Your task to perform on an android device: Open sound settings Image 0: 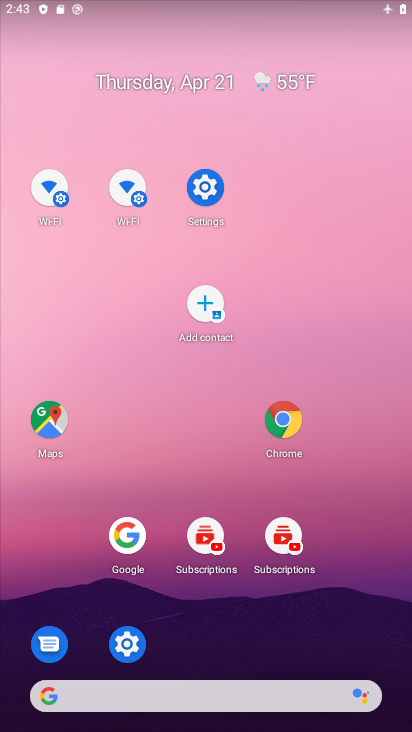
Step 0: drag from (299, 486) to (201, 137)
Your task to perform on an android device: Open sound settings Image 1: 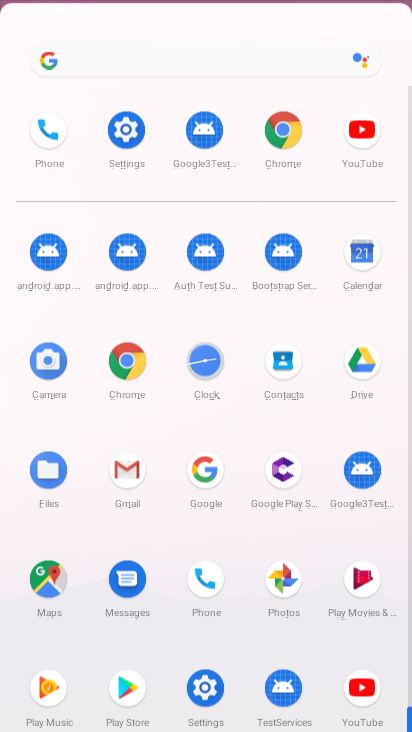
Step 1: drag from (376, 588) to (382, 196)
Your task to perform on an android device: Open sound settings Image 2: 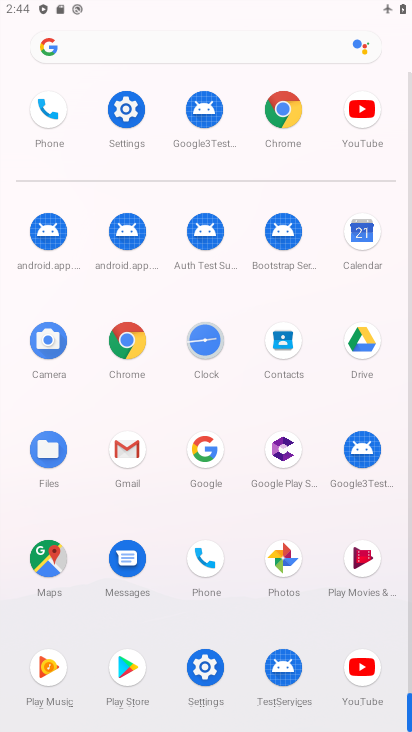
Step 2: click (119, 111)
Your task to perform on an android device: Open sound settings Image 3: 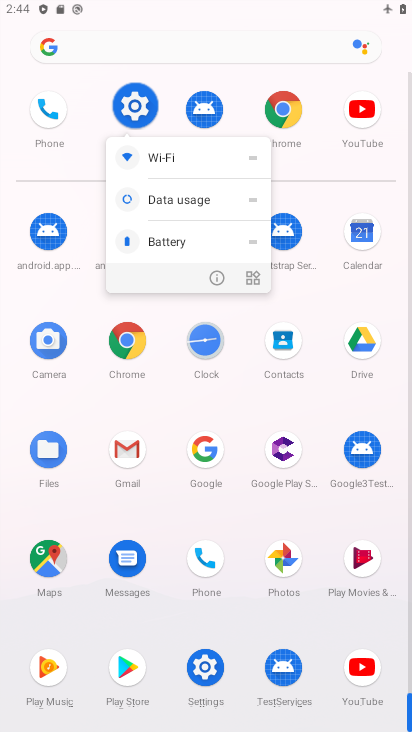
Step 3: click (127, 107)
Your task to perform on an android device: Open sound settings Image 4: 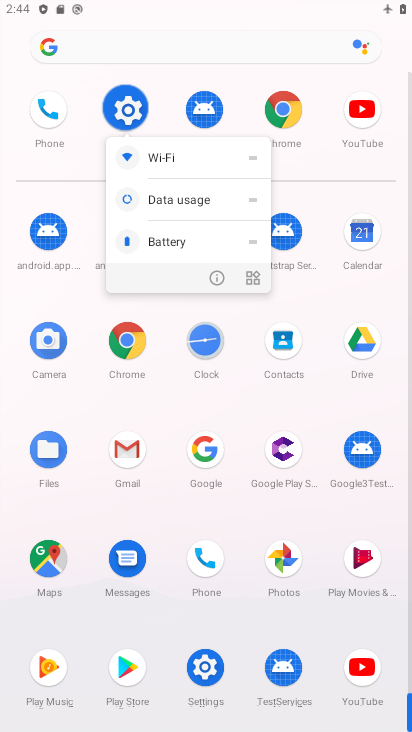
Step 4: click (124, 107)
Your task to perform on an android device: Open sound settings Image 5: 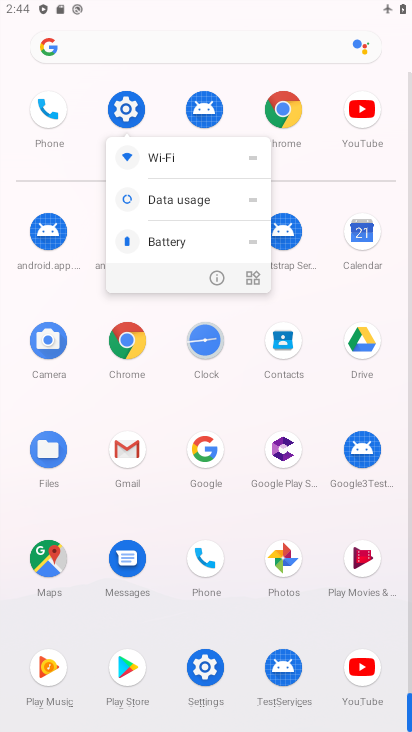
Step 5: click (149, 160)
Your task to perform on an android device: Open sound settings Image 6: 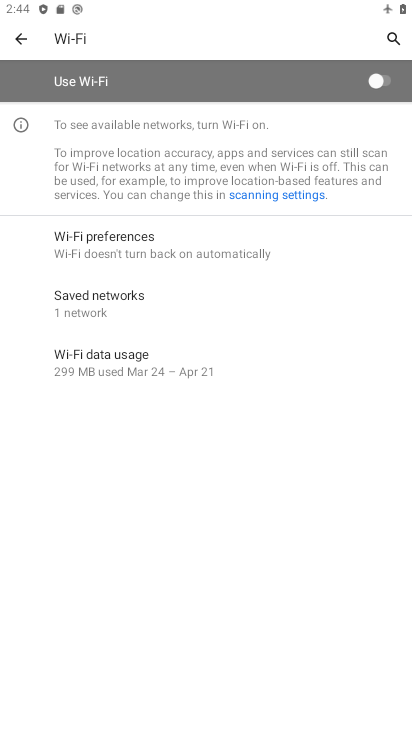
Step 6: click (19, 30)
Your task to perform on an android device: Open sound settings Image 7: 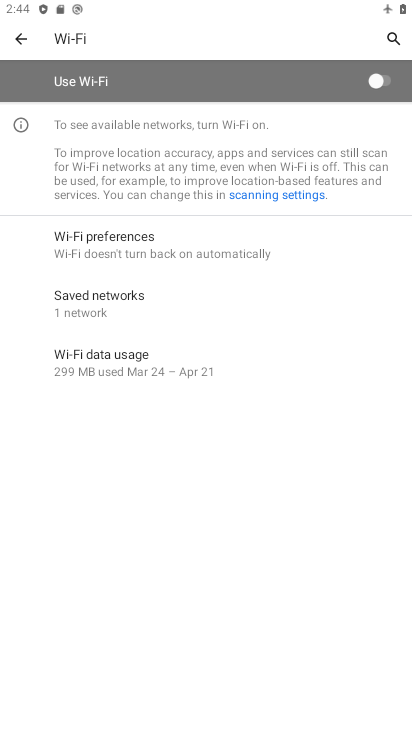
Step 7: click (19, 30)
Your task to perform on an android device: Open sound settings Image 8: 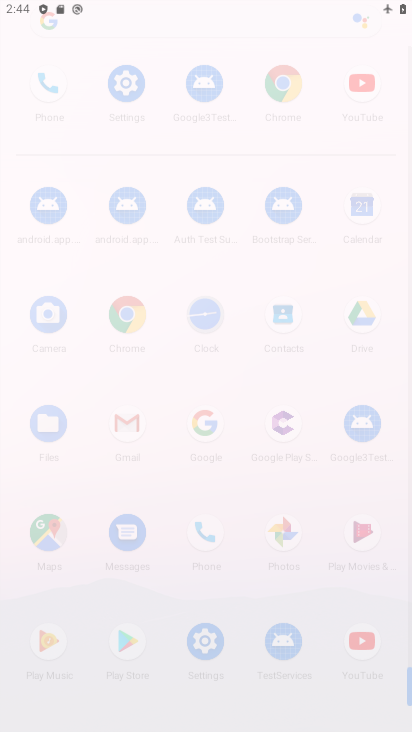
Step 8: click (19, 30)
Your task to perform on an android device: Open sound settings Image 9: 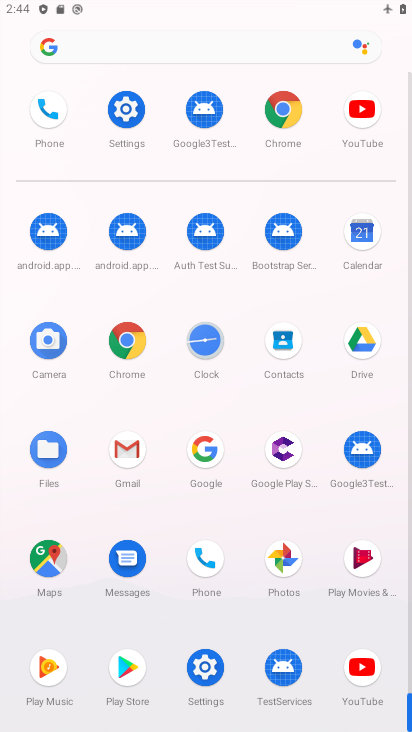
Step 9: click (130, 116)
Your task to perform on an android device: Open sound settings Image 10: 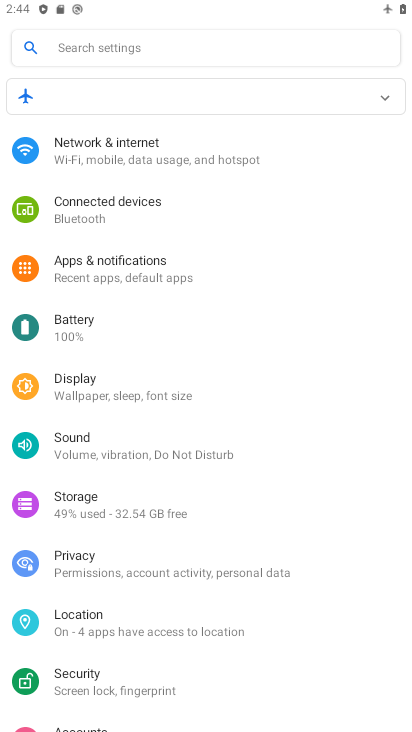
Step 10: drag from (155, 381) to (192, 90)
Your task to perform on an android device: Open sound settings Image 11: 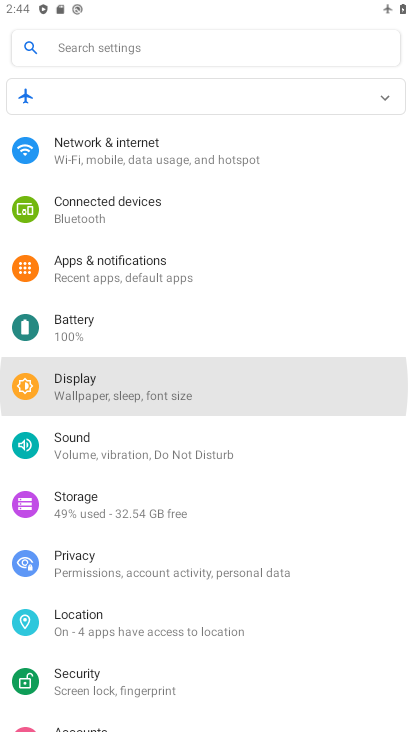
Step 11: drag from (110, 465) to (109, 299)
Your task to perform on an android device: Open sound settings Image 12: 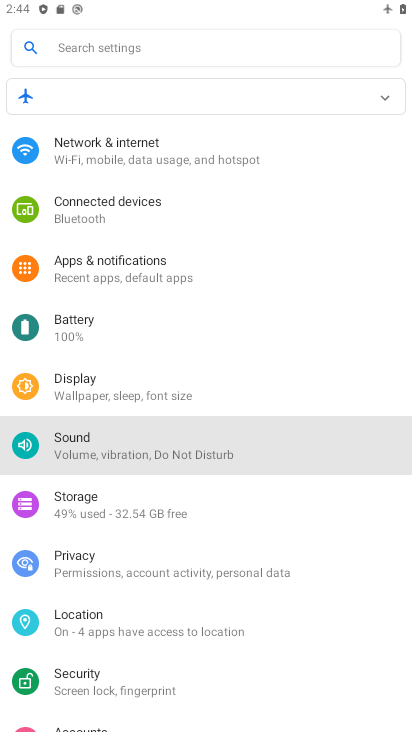
Step 12: drag from (133, 525) to (120, 226)
Your task to perform on an android device: Open sound settings Image 13: 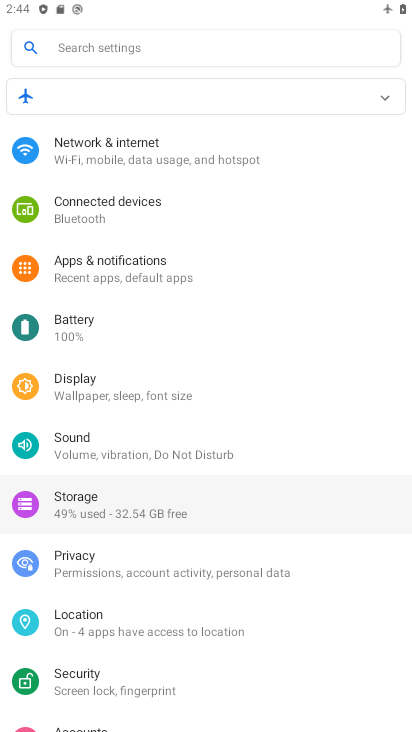
Step 13: drag from (148, 232) to (118, 59)
Your task to perform on an android device: Open sound settings Image 14: 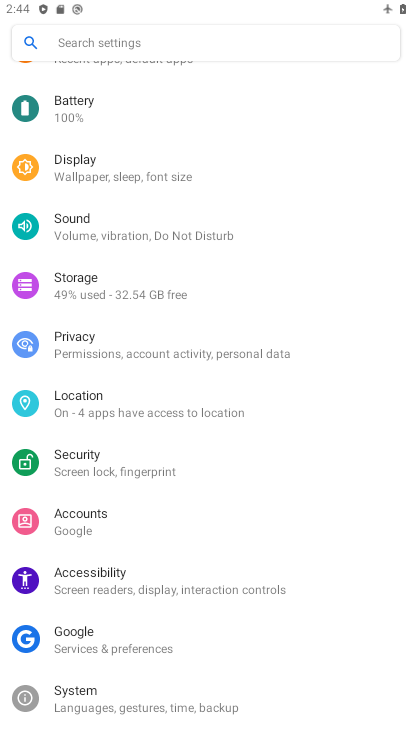
Step 14: drag from (42, 324) to (57, 111)
Your task to perform on an android device: Open sound settings Image 15: 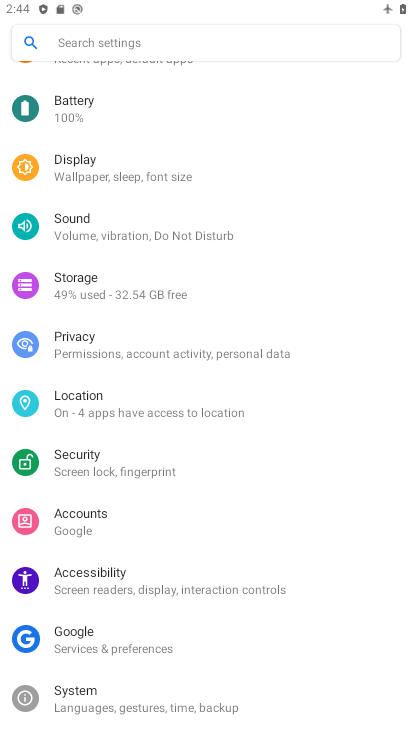
Step 15: drag from (120, 230) to (81, 404)
Your task to perform on an android device: Open sound settings Image 16: 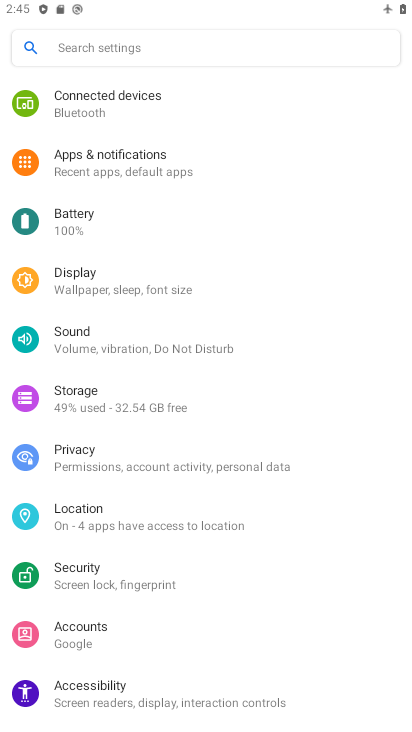
Step 16: drag from (144, 365) to (127, 470)
Your task to perform on an android device: Open sound settings Image 17: 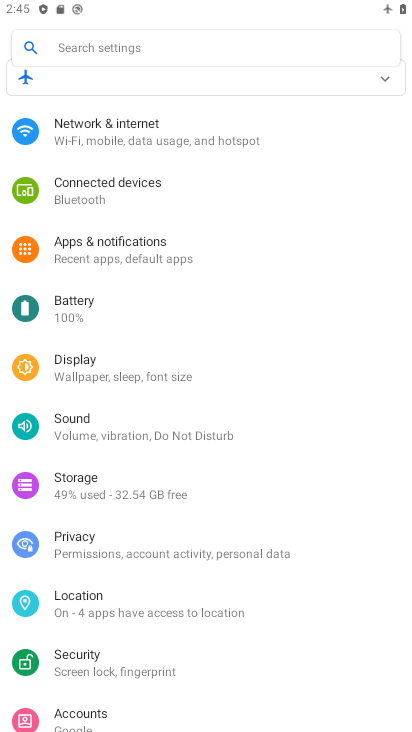
Step 17: click (74, 423)
Your task to perform on an android device: Open sound settings Image 18: 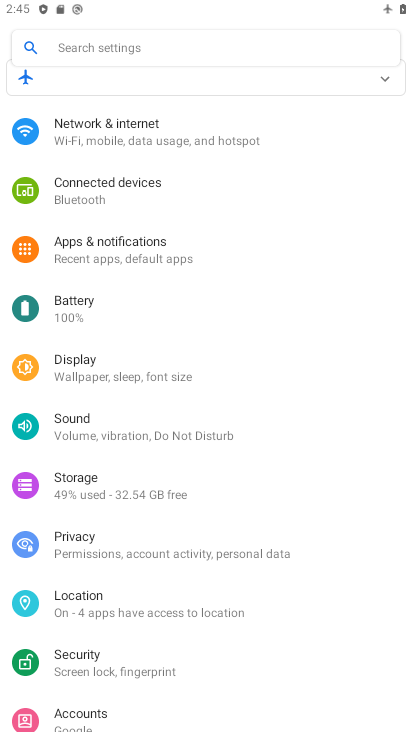
Step 18: click (72, 424)
Your task to perform on an android device: Open sound settings Image 19: 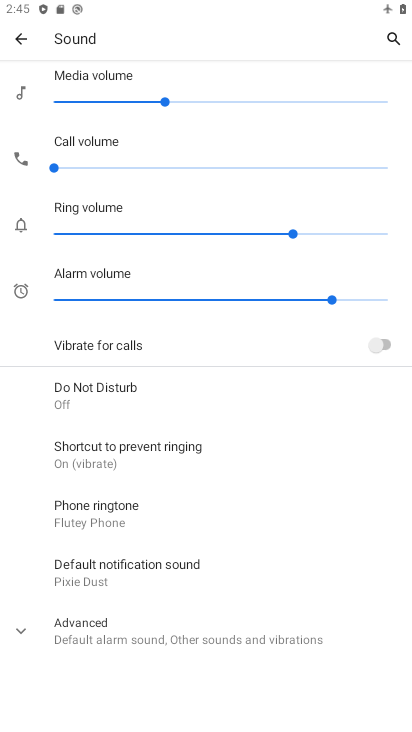
Step 19: drag from (125, 591) to (134, 276)
Your task to perform on an android device: Open sound settings Image 20: 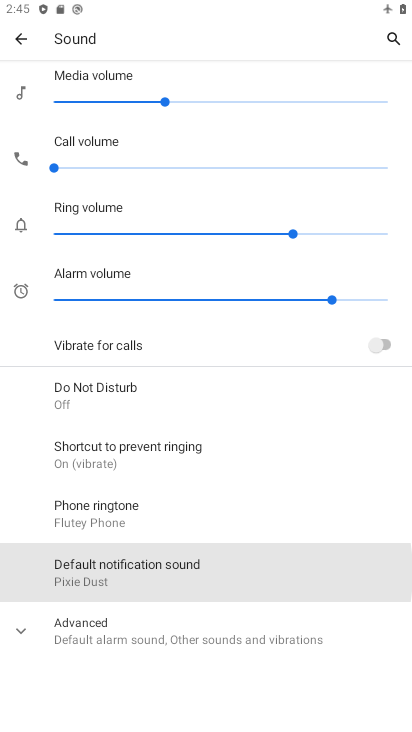
Step 20: drag from (142, 429) to (68, 26)
Your task to perform on an android device: Open sound settings Image 21: 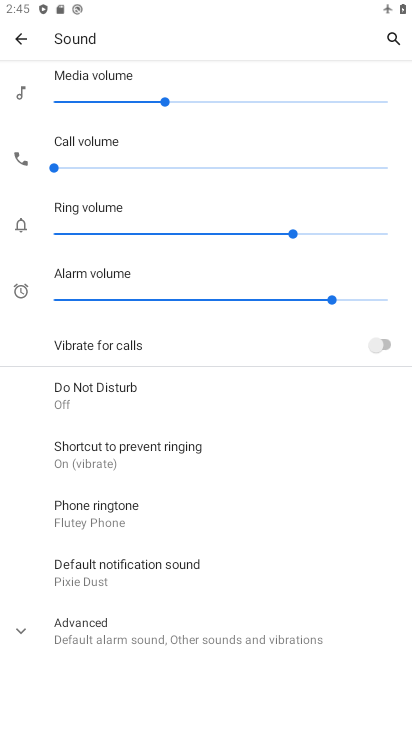
Step 21: click (18, 40)
Your task to perform on an android device: Open sound settings Image 22: 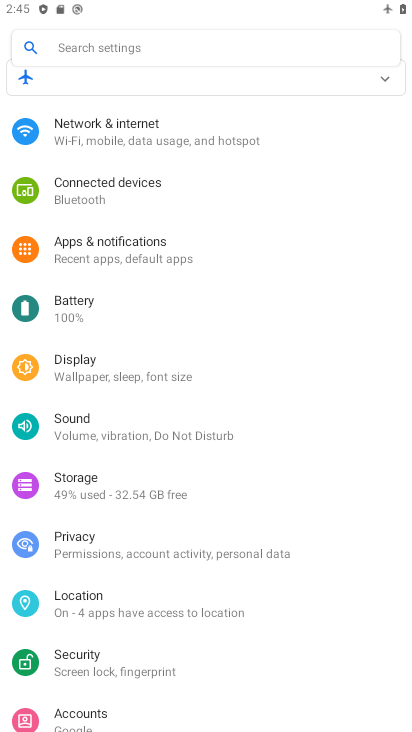
Step 22: task complete